Your task to perform on an android device: open sync settings in chrome Image 0: 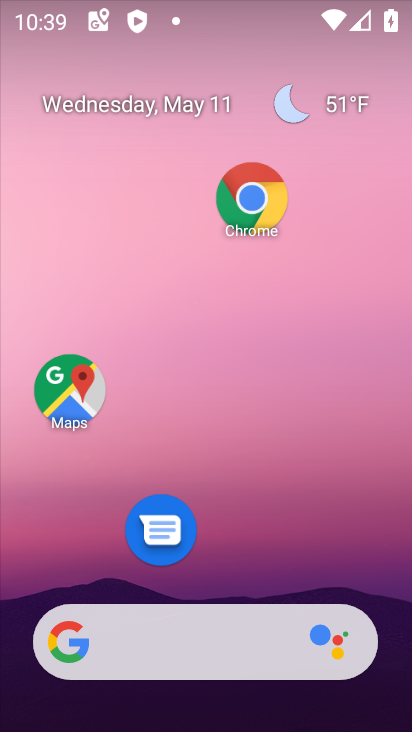
Step 0: click (247, 210)
Your task to perform on an android device: open sync settings in chrome Image 1: 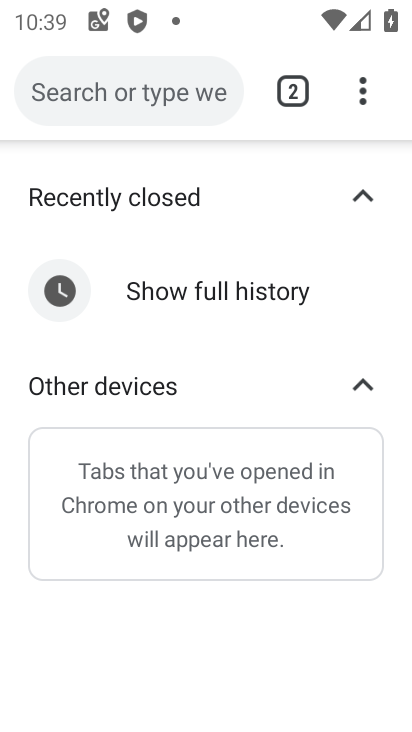
Step 1: click (363, 91)
Your task to perform on an android device: open sync settings in chrome Image 2: 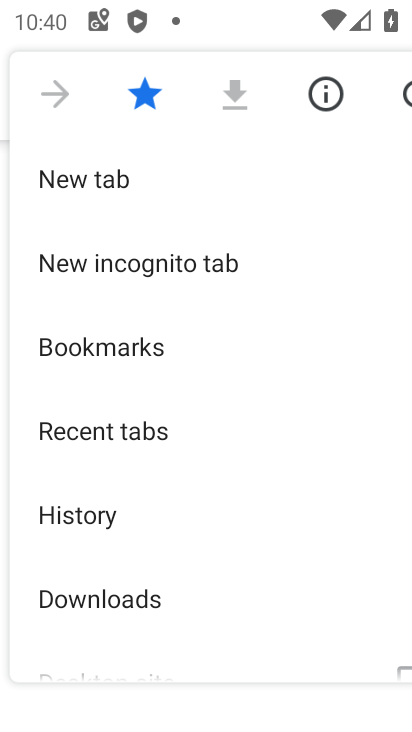
Step 2: drag from (181, 574) to (176, 248)
Your task to perform on an android device: open sync settings in chrome Image 3: 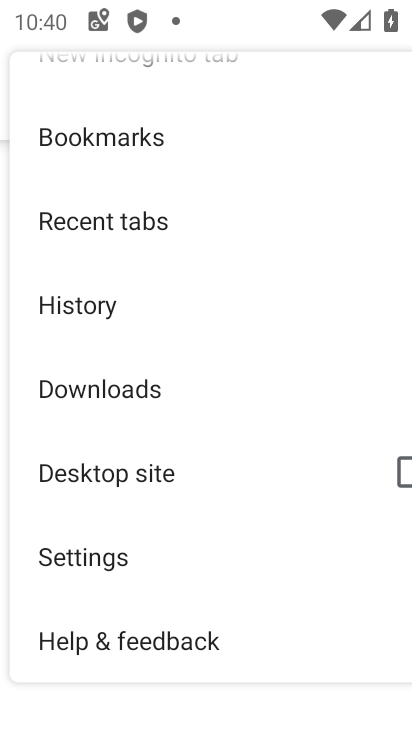
Step 3: click (125, 555)
Your task to perform on an android device: open sync settings in chrome Image 4: 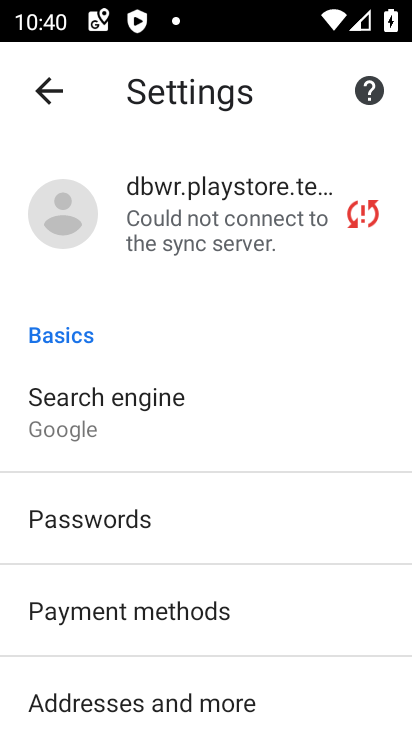
Step 4: click (195, 219)
Your task to perform on an android device: open sync settings in chrome Image 5: 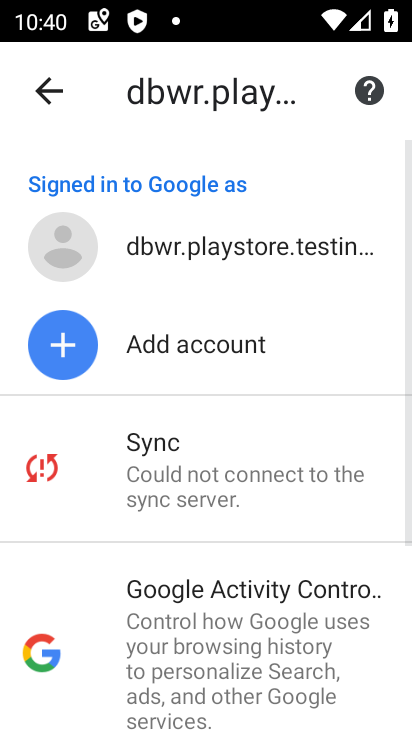
Step 5: click (156, 478)
Your task to perform on an android device: open sync settings in chrome Image 6: 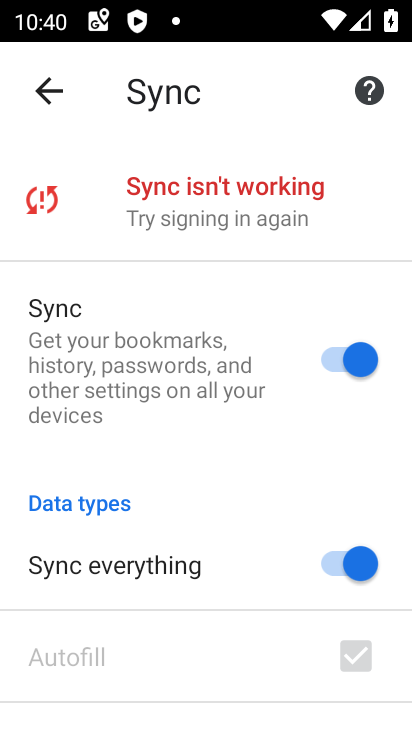
Step 6: task complete